Your task to perform on an android device: turn on the 12-hour format for clock Image 0: 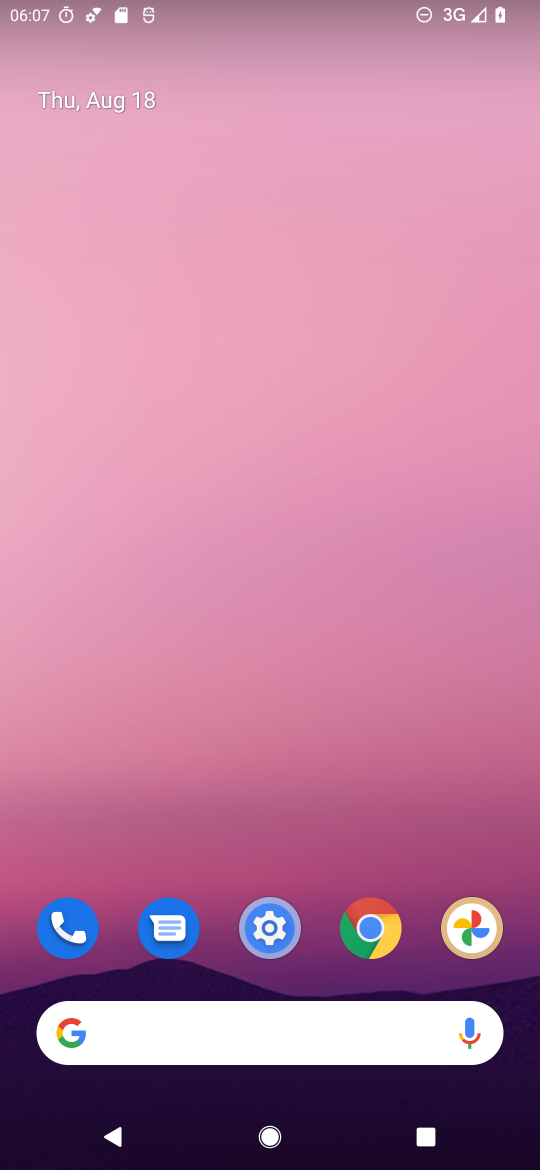
Step 0: drag from (338, 764) to (211, 1)
Your task to perform on an android device: turn on the 12-hour format for clock Image 1: 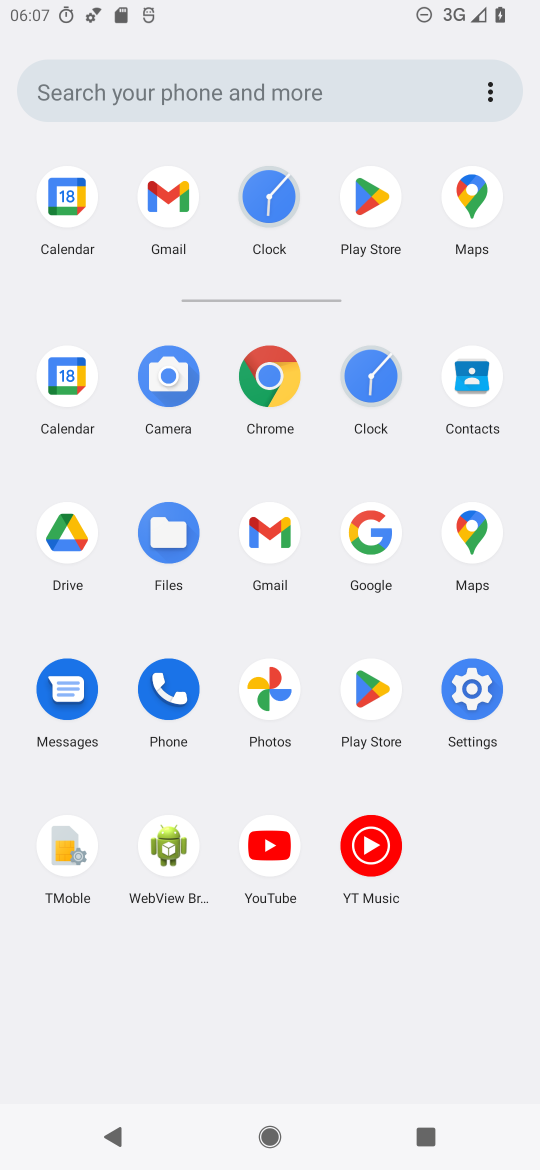
Step 1: click (373, 377)
Your task to perform on an android device: turn on the 12-hour format for clock Image 2: 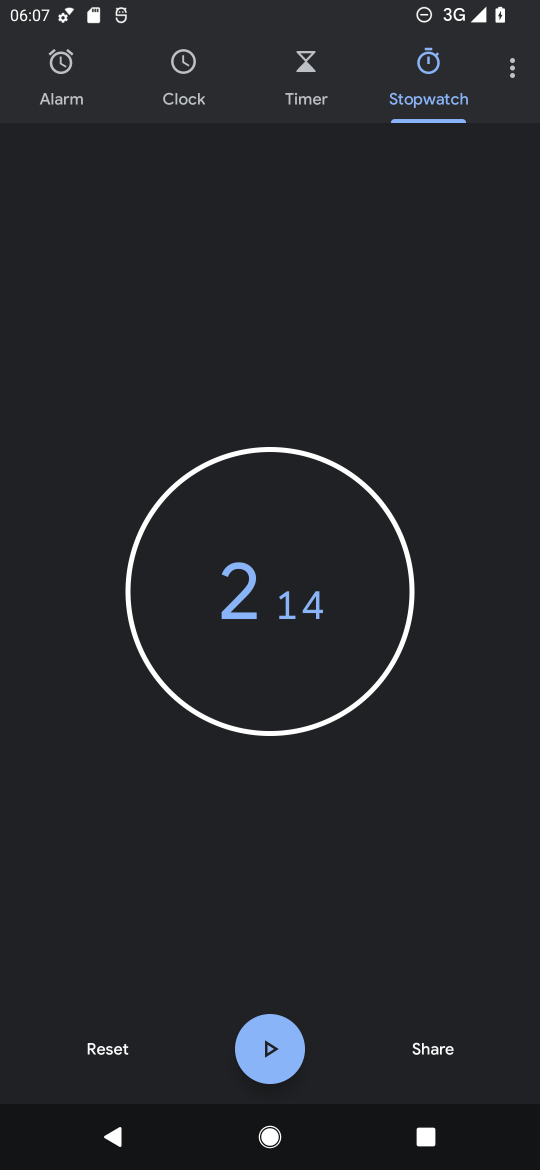
Step 2: click (513, 68)
Your task to perform on an android device: turn on the 12-hour format for clock Image 3: 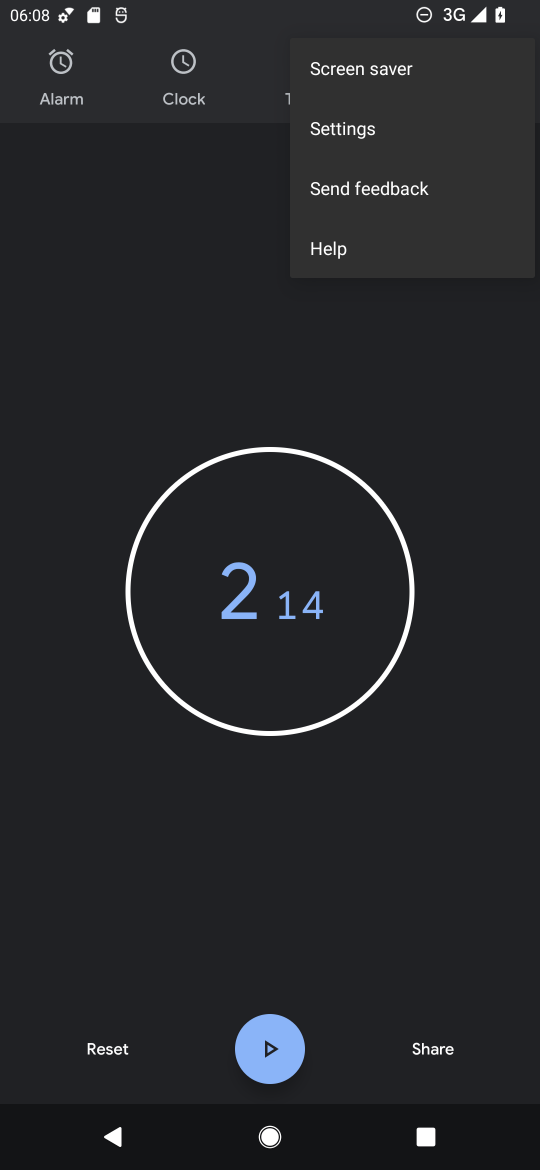
Step 3: click (362, 138)
Your task to perform on an android device: turn on the 12-hour format for clock Image 4: 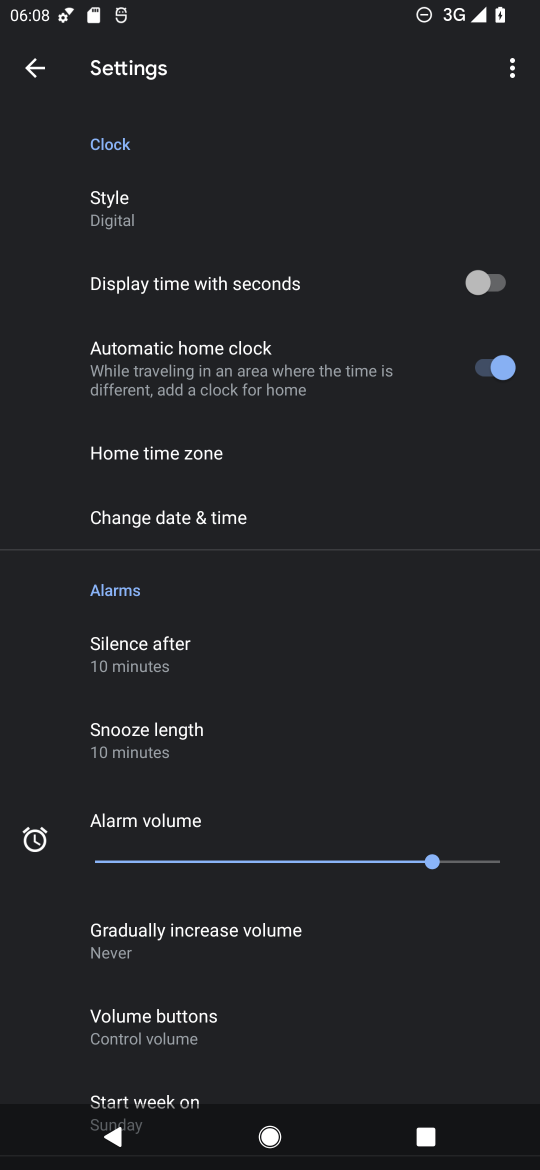
Step 4: click (216, 529)
Your task to perform on an android device: turn on the 12-hour format for clock Image 5: 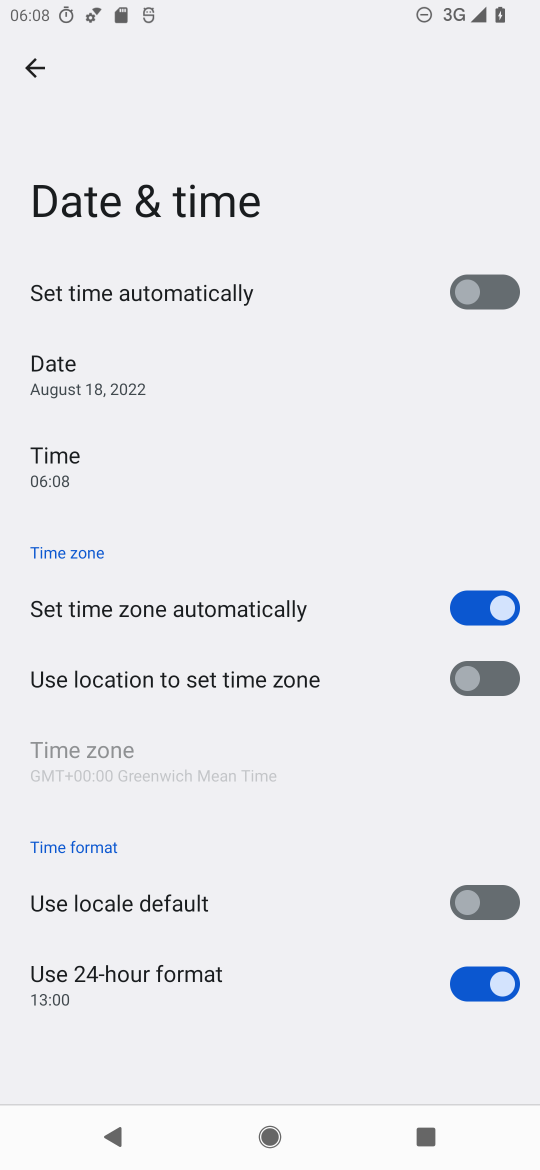
Step 5: drag from (275, 961) to (291, 504)
Your task to perform on an android device: turn on the 12-hour format for clock Image 6: 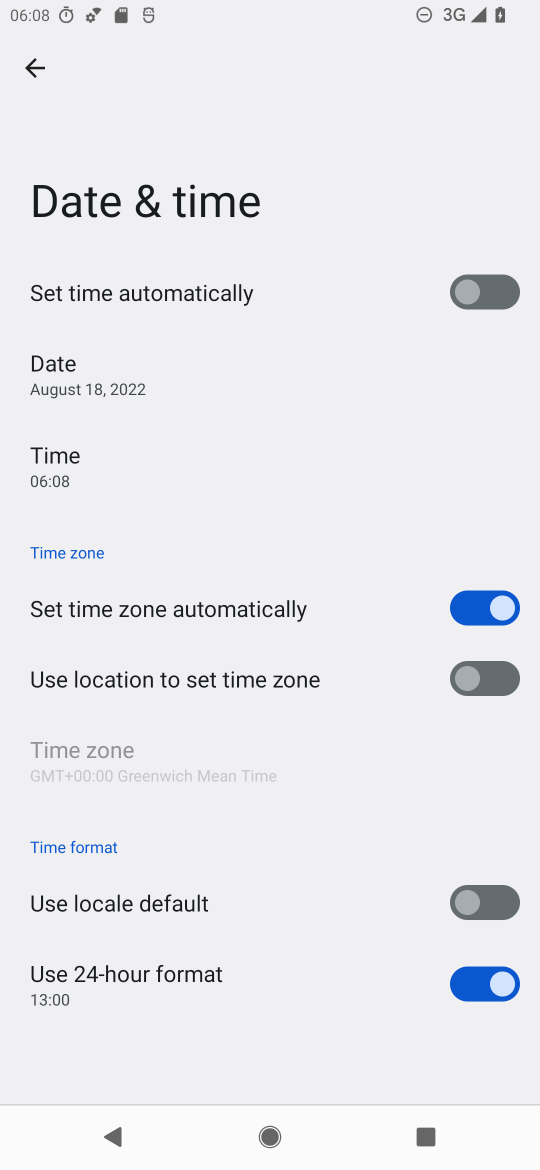
Step 6: click (499, 891)
Your task to perform on an android device: turn on the 12-hour format for clock Image 7: 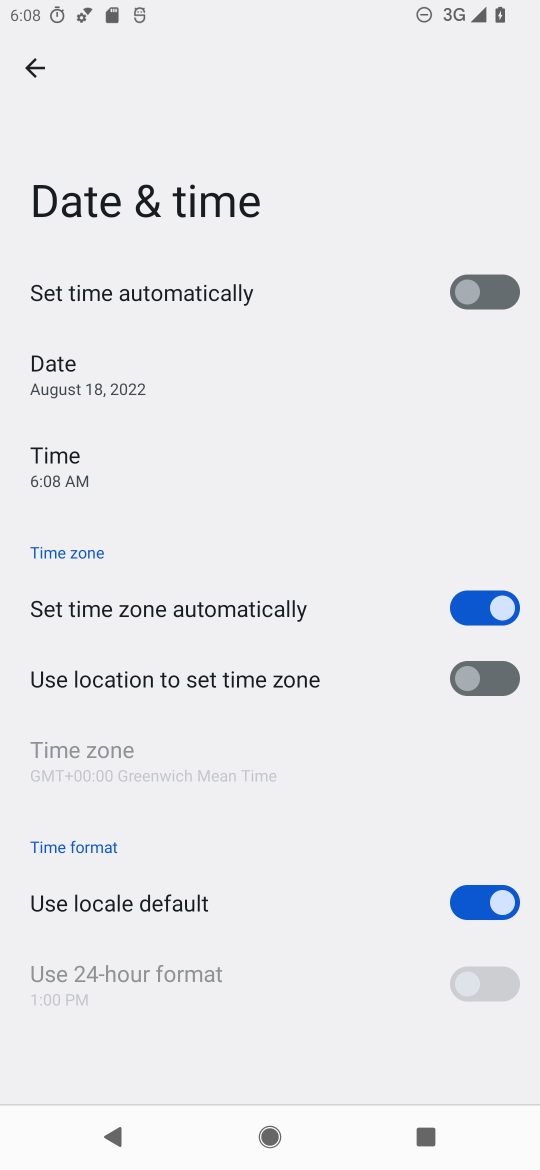
Step 7: task complete